Your task to perform on an android device: Go to wifi settings Image 0: 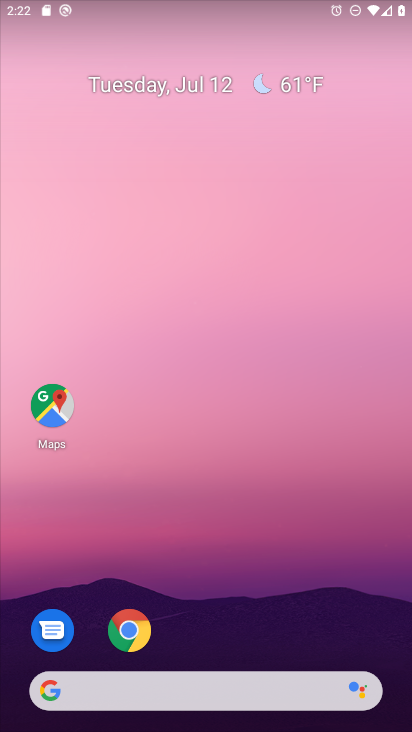
Step 0: drag from (226, 634) to (227, 140)
Your task to perform on an android device: Go to wifi settings Image 1: 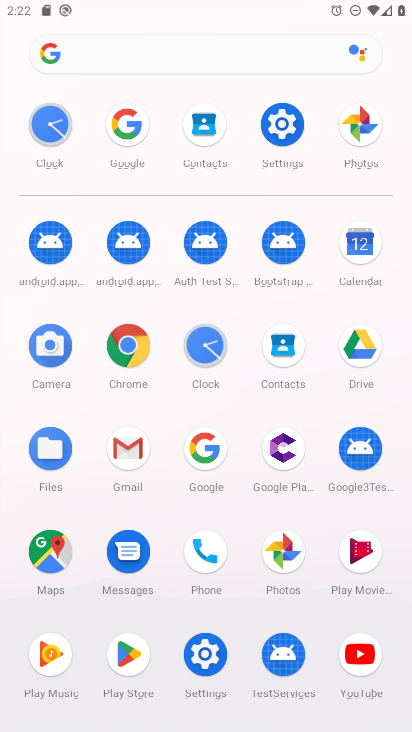
Step 1: click (260, 144)
Your task to perform on an android device: Go to wifi settings Image 2: 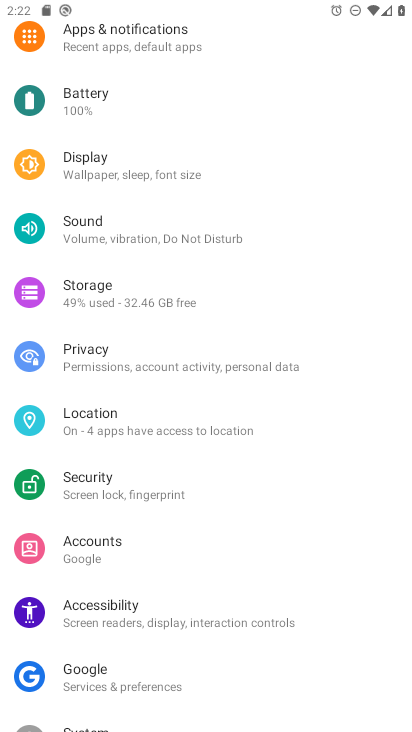
Step 2: drag from (156, 108) to (194, 460)
Your task to perform on an android device: Go to wifi settings Image 3: 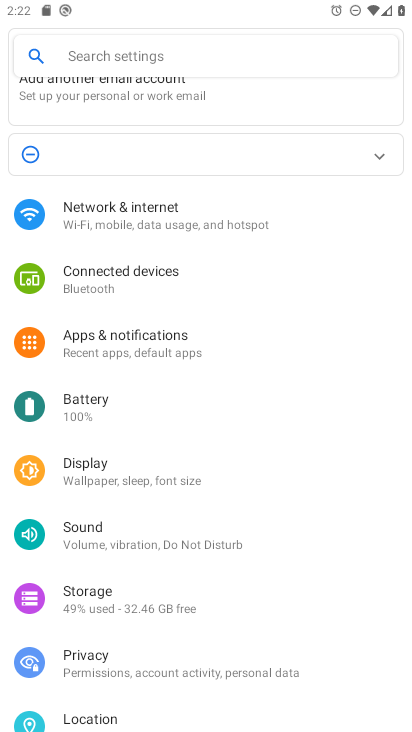
Step 3: click (134, 215)
Your task to perform on an android device: Go to wifi settings Image 4: 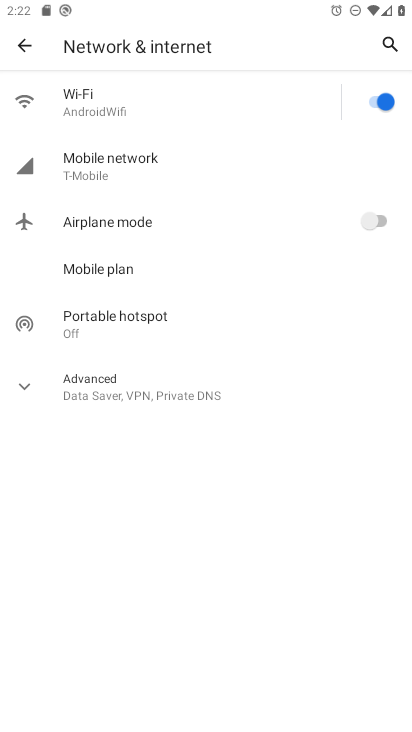
Step 4: click (108, 96)
Your task to perform on an android device: Go to wifi settings Image 5: 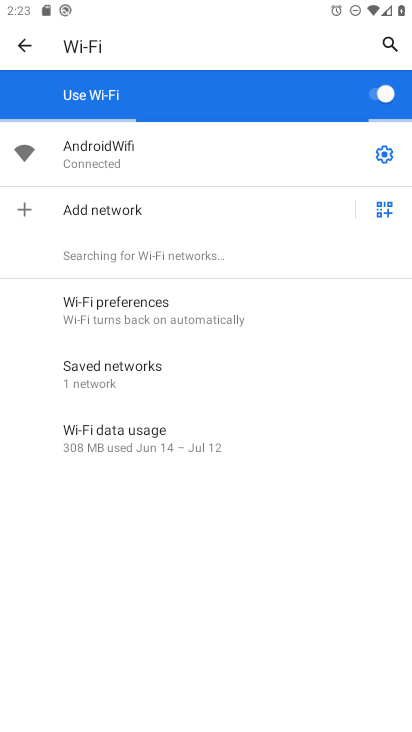
Step 5: task complete